Your task to perform on an android device: find snoozed emails in the gmail app Image 0: 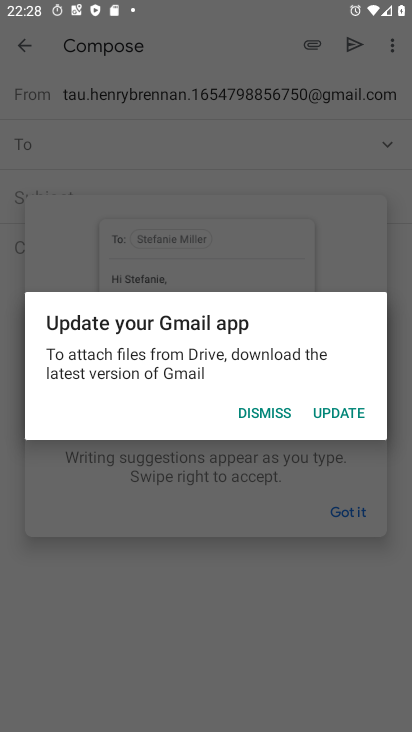
Step 0: click (283, 417)
Your task to perform on an android device: find snoozed emails in the gmail app Image 1: 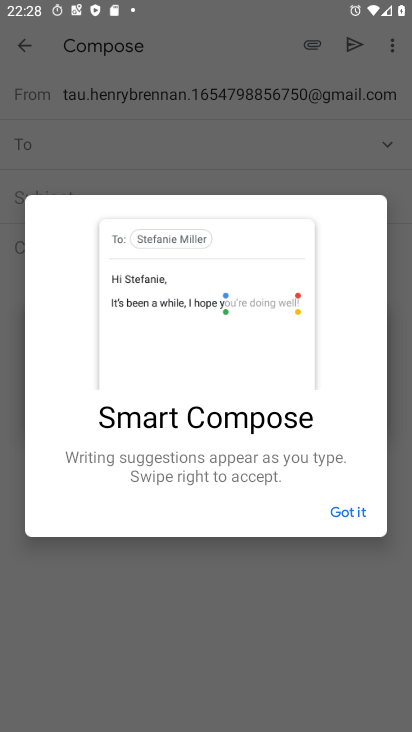
Step 1: click (355, 515)
Your task to perform on an android device: find snoozed emails in the gmail app Image 2: 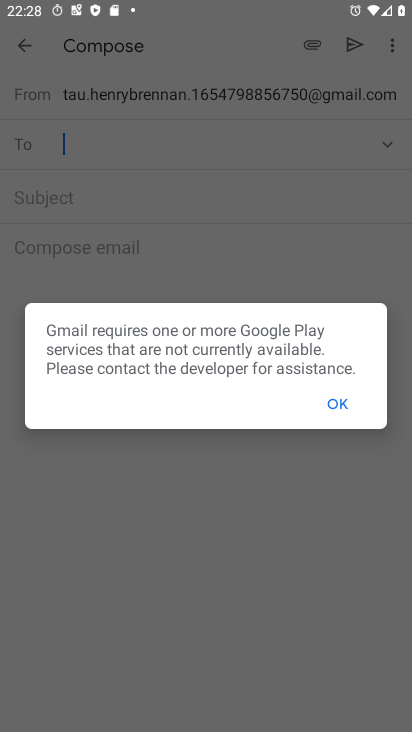
Step 2: press back button
Your task to perform on an android device: find snoozed emails in the gmail app Image 3: 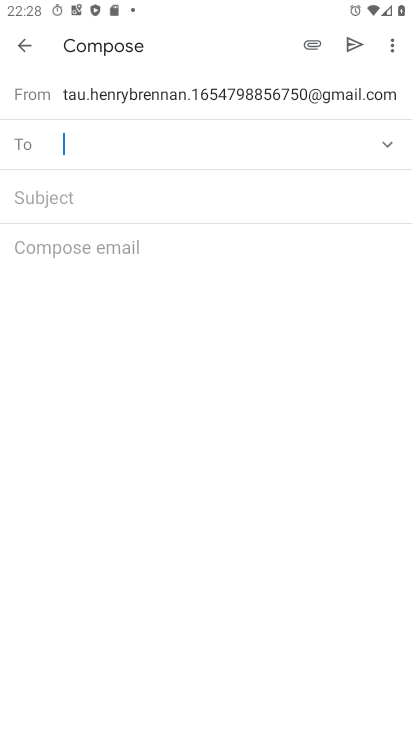
Step 3: press home button
Your task to perform on an android device: find snoozed emails in the gmail app Image 4: 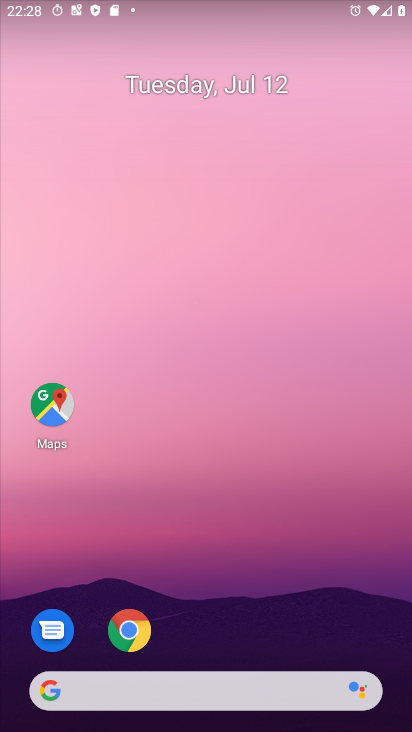
Step 4: drag from (240, 690) to (289, 34)
Your task to perform on an android device: find snoozed emails in the gmail app Image 5: 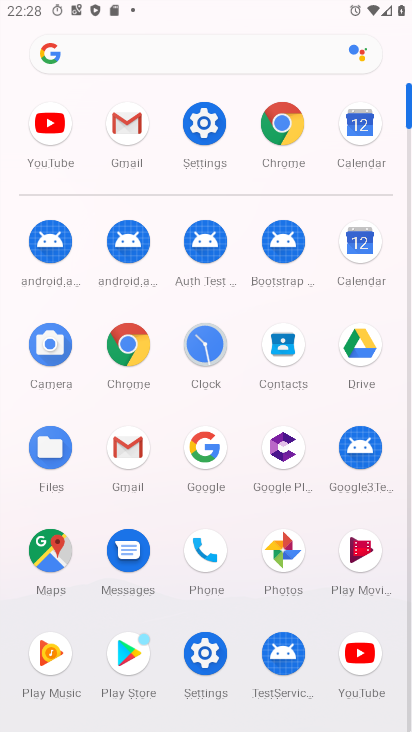
Step 5: click (111, 131)
Your task to perform on an android device: find snoozed emails in the gmail app Image 6: 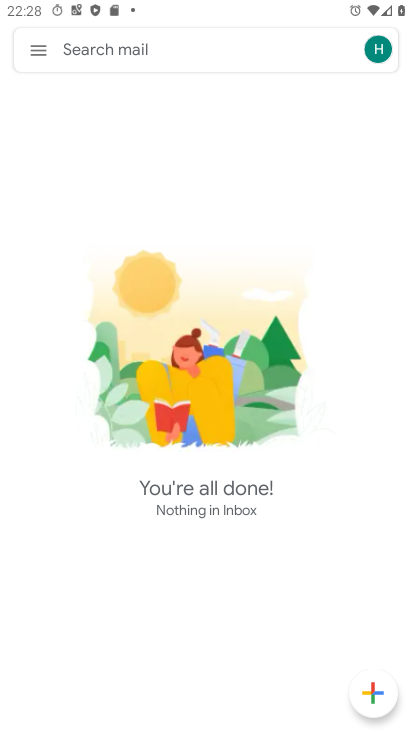
Step 6: click (38, 42)
Your task to perform on an android device: find snoozed emails in the gmail app Image 7: 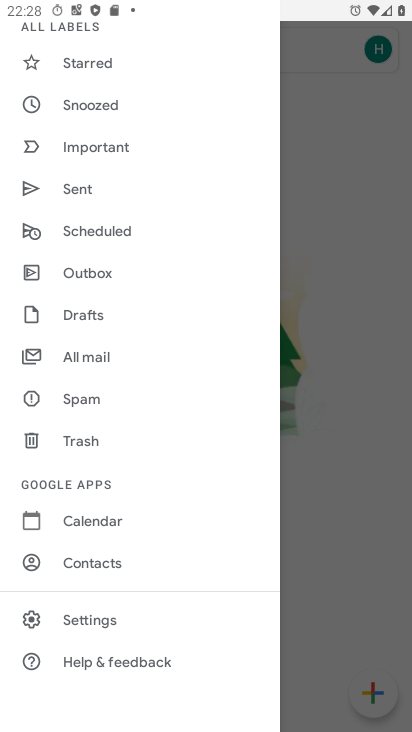
Step 7: click (88, 106)
Your task to perform on an android device: find snoozed emails in the gmail app Image 8: 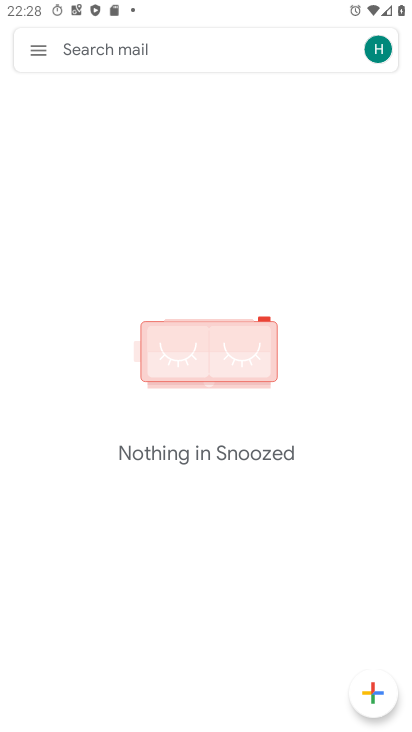
Step 8: task complete